Your task to perform on an android device: toggle notification dots Image 0: 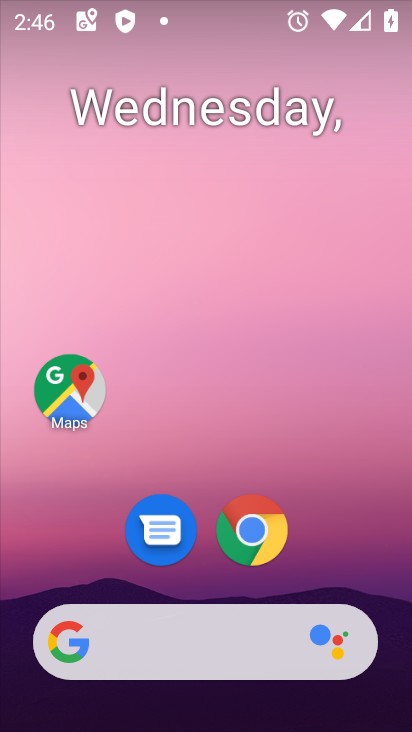
Step 0: drag from (153, 634) to (177, 0)
Your task to perform on an android device: toggle notification dots Image 1: 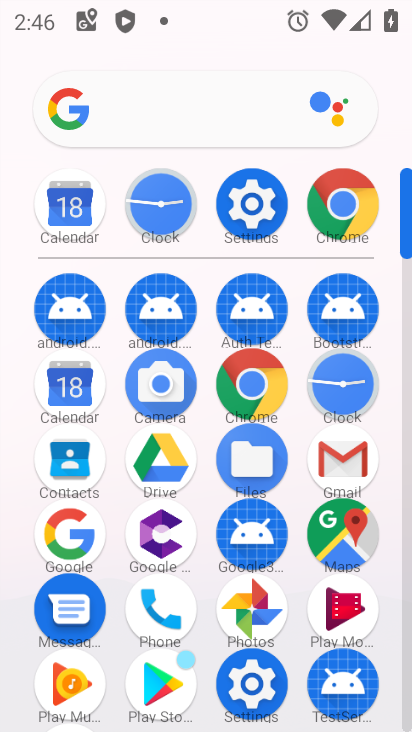
Step 1: click (264, 200)
Your task to perform on an android device: toggle notification dots Image 2: 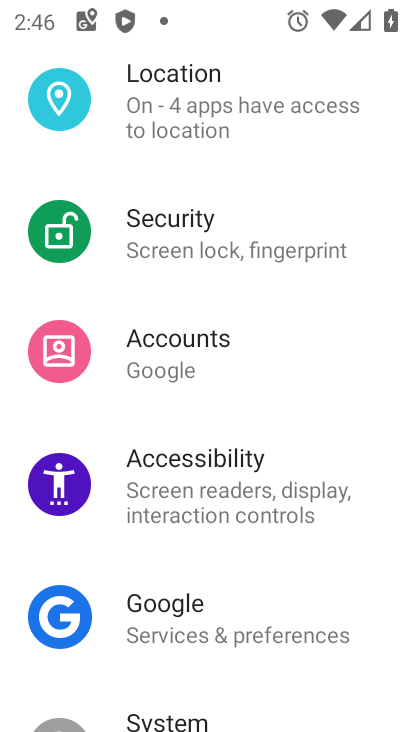
Step 2: drag from (184, 206) to (119, 19)
Your task to perform on an android device: toggle notification dots Image 3: 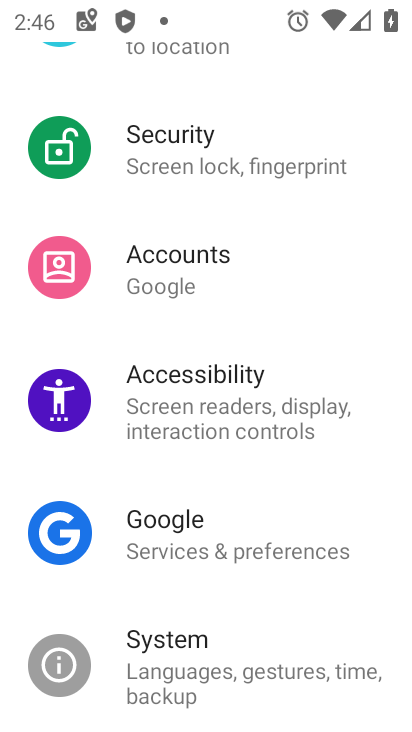
Step 3: drag from (207, 72) to (194, 454)
Your task to perform on an android device: toggle notification dots Image 4: 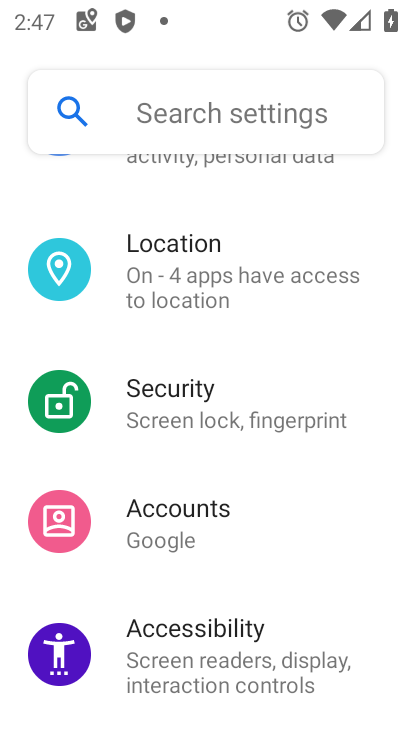
Step 4: drag from (205, 378) to (220, 510)
Your task to perform on an android device: toggle notification dots Image 5: 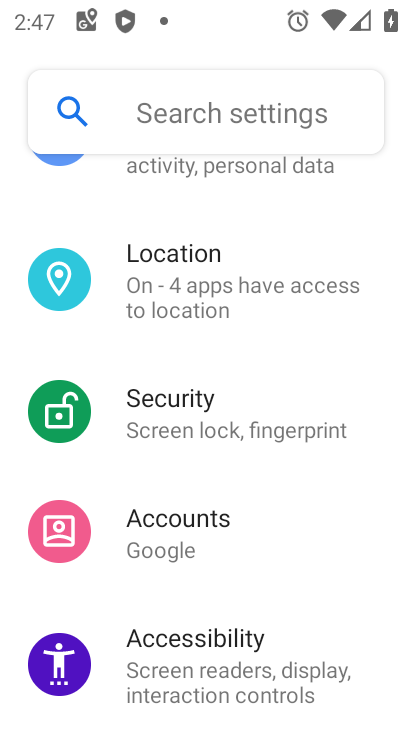
Step 5: drag from (207, 260) to (133, 712)
Your task to perform on an android device: toggle notification dots Image 6: 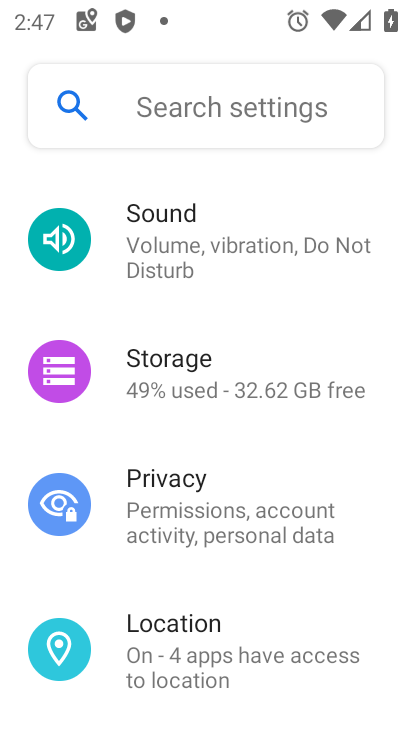
Step 6: drag from (177, 221) to (235, 730)
Your task to perform on an android device: toggle notification dots Image 7: 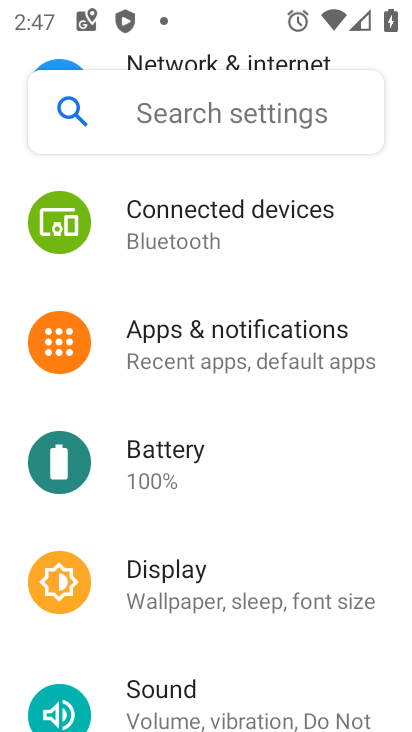
Step 7: click (269, 347)
Your task to perform on an android device: toggle notification dots Image 8: 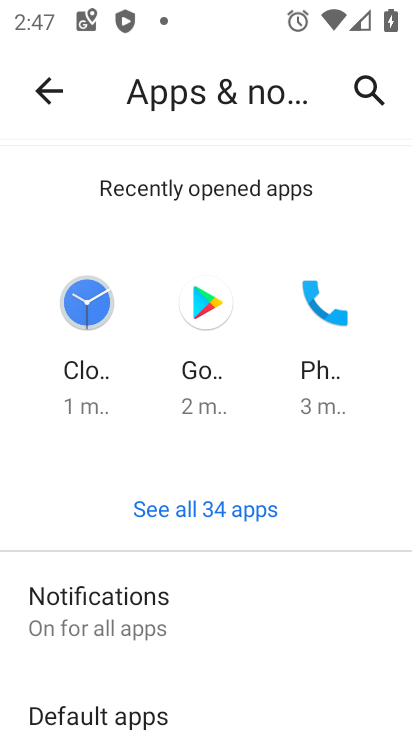
Step 8: click (208, 619)
Your task to perform on an android device: toggle notification dots Image 9: 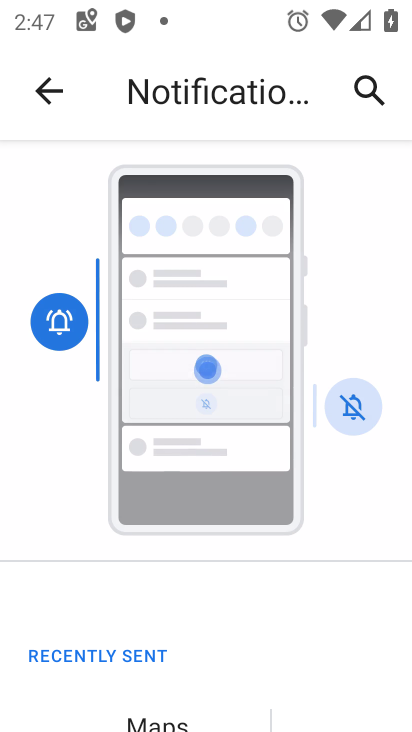
Step 9: drag from (208, 619) to (290, 117)
Your task to perform on an android device: toggle notification dots Image 10: 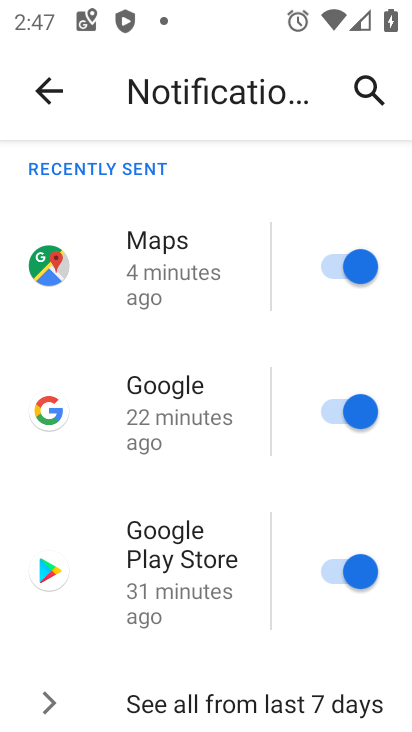
Step 10: drag from (228, 639) to (213, 8)
Your task to perform on an android device: toggle notification dots Image 11: 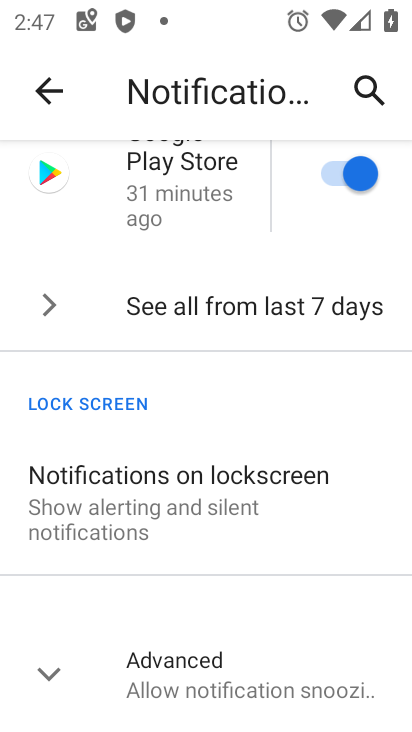
Step 11: click (218, 657)
Your task to perform on an android device: toggle notification dots Image 12: 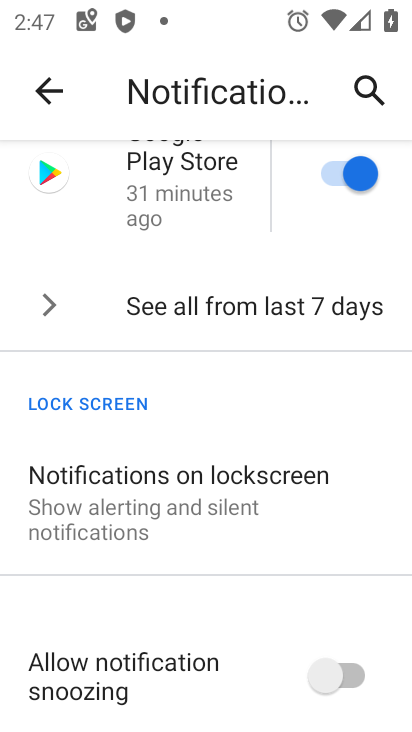
Step 12: drag from (231, 519) to (309, 181)
Your task to perform on an android device: toggle notification dots Image 13: 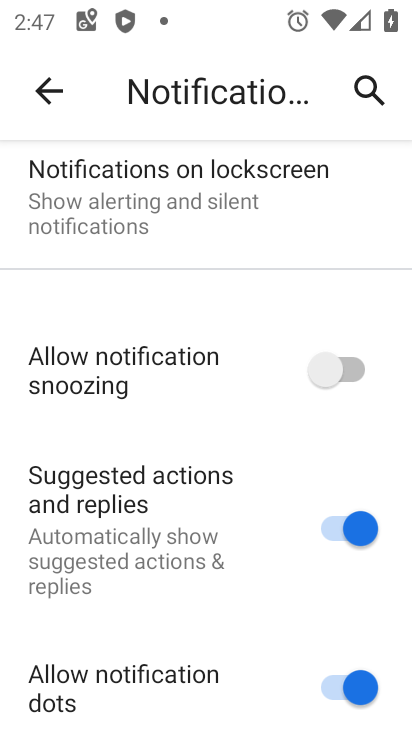
Step 13: drag from (260, 617) to (238, 219)
Your task to perform on an android device: toggle notification dots Image 14: 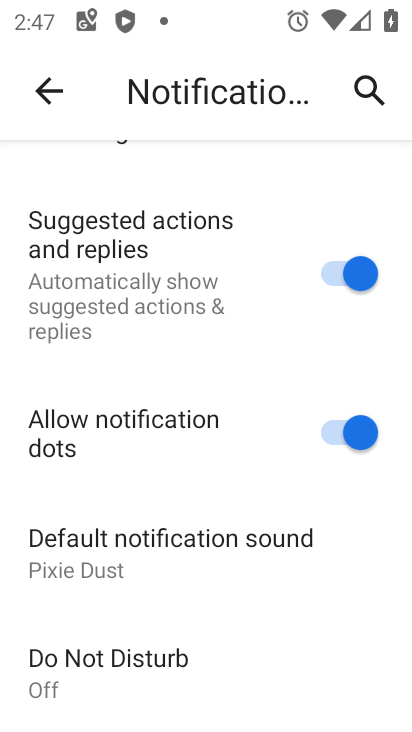
Step 14: click (344, 429)
Your task to perform on an android device: toggle notification dots Image 15: 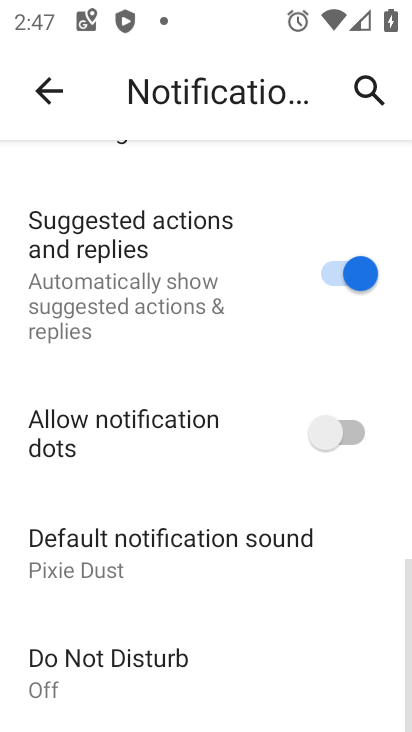
Step 15: task complete